Your task to perform on an android device: Add "razer kraken" to the cart on ebay Image 0: 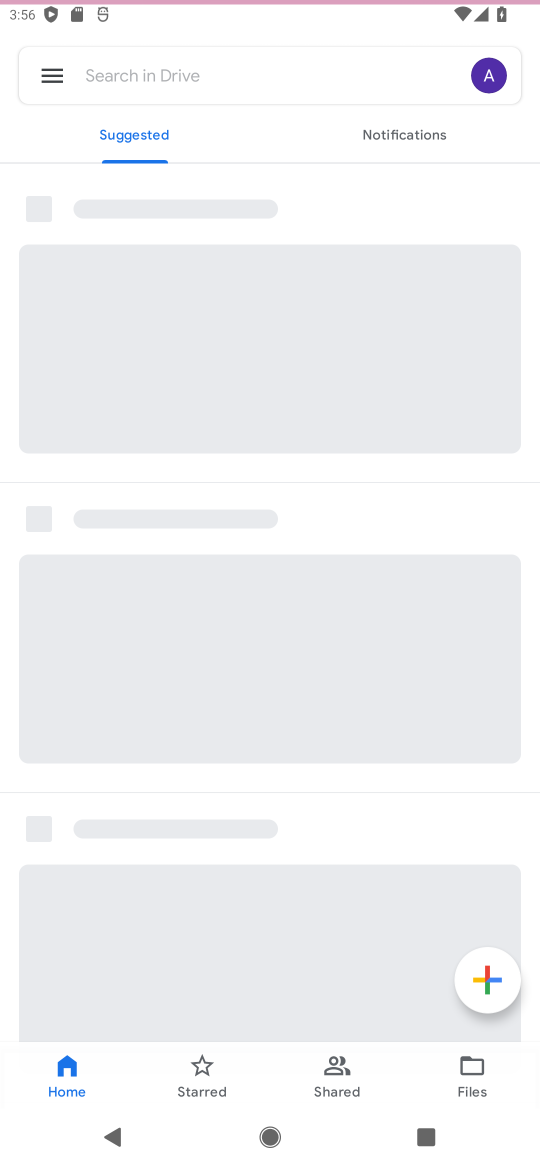
Step 0: click (405, 493)
Your task to perform on an android device: Add "razer kraken" to the cart on ebay Image 1: 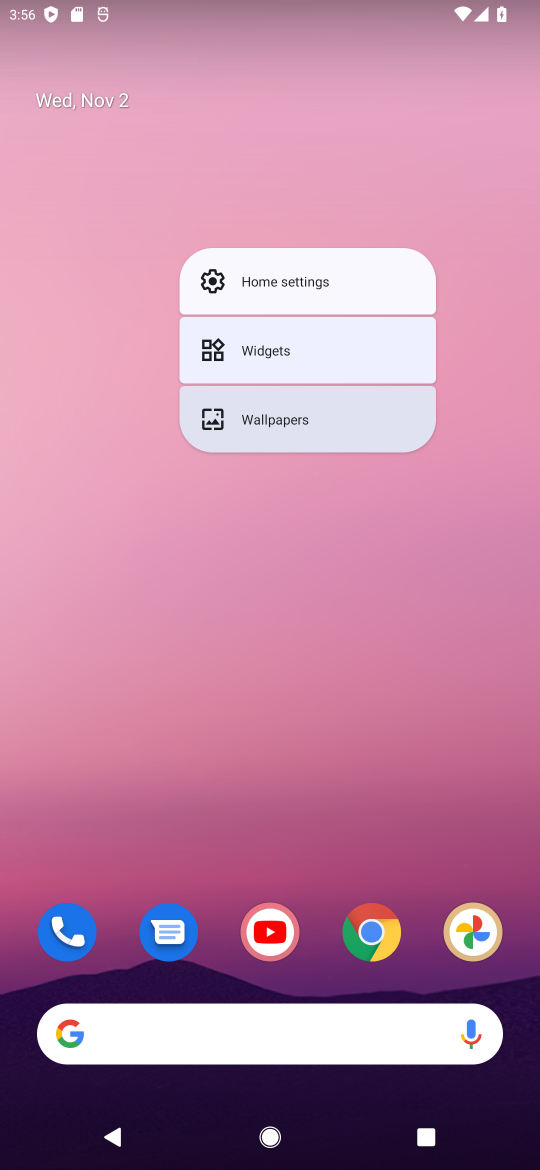
Step 1: click (370, 956)
Your task to perform on an android device: Add "razer kraken" to the cart on ebay Image 2: 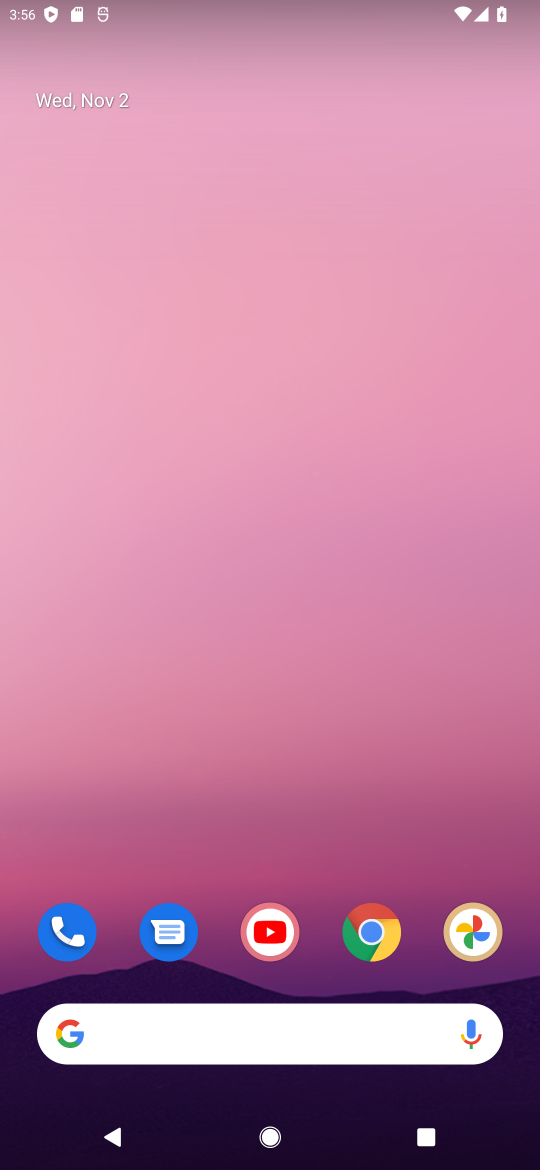
Step 2: click (375, 939)
Your task to perform on an android device: Add "razer kraken" to the cart on ebay Image 3: 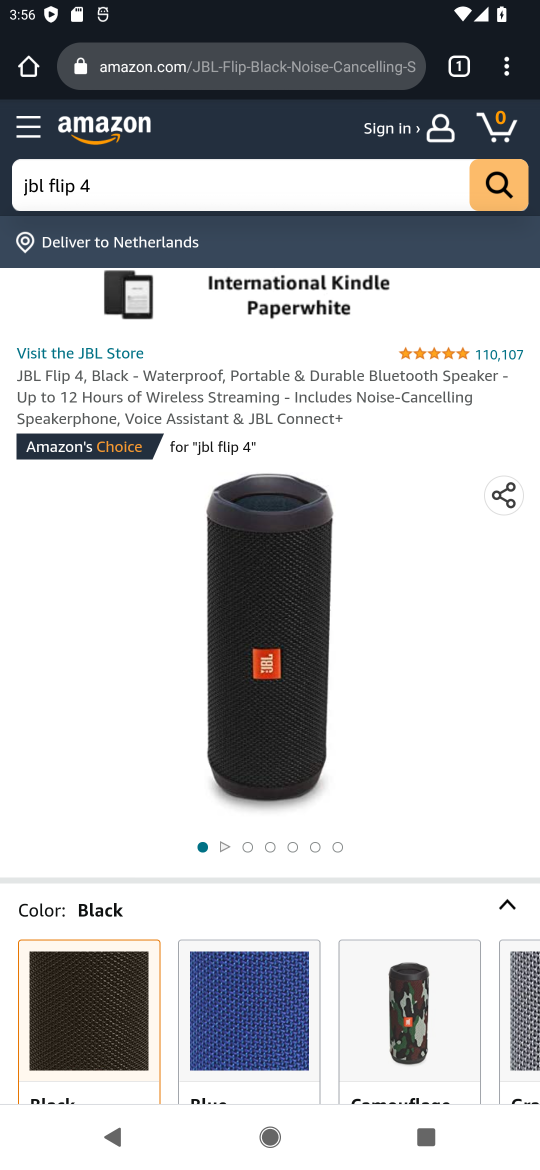
Step 3: task complete